Your task to perform on an android device: turn on data saver in the chrome app Image 0: 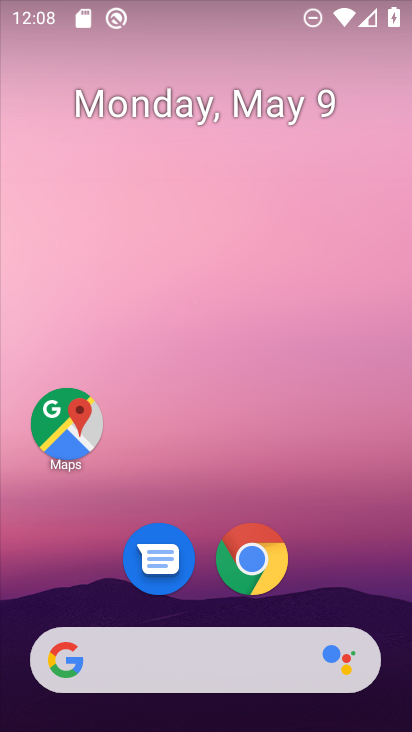
Step 0: drag from (318, 13) to (283, 376)
Your task to perform on an android device: turn on data saver in the chrome app Image 1: 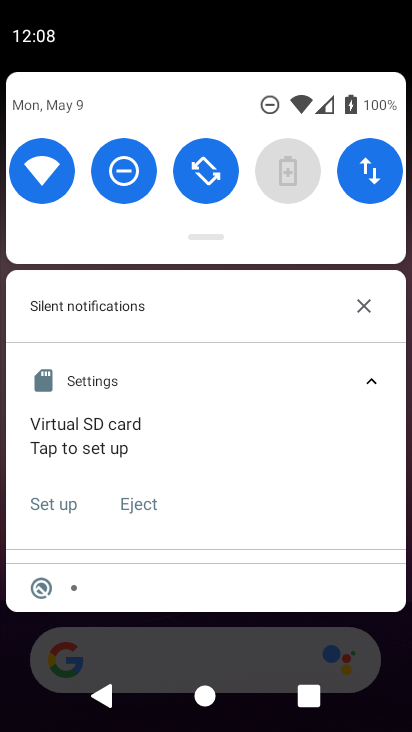
Step 1: task complete